Your task to perform on an android device: Turn off the flashlight Image 0: 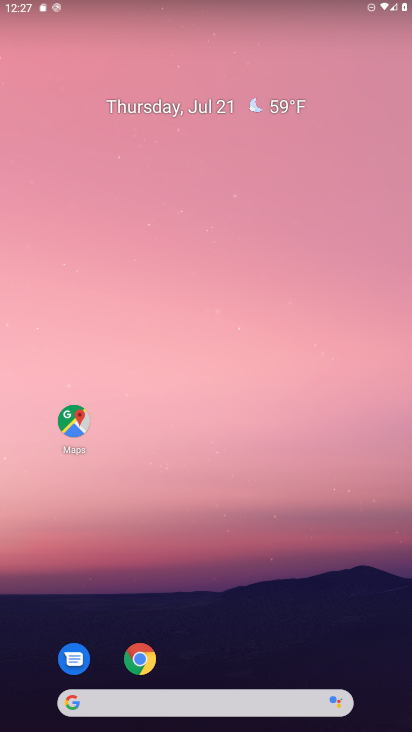
Step 0: press home button
Your task to perform on an android device: Turn off the flashlight Image 1: 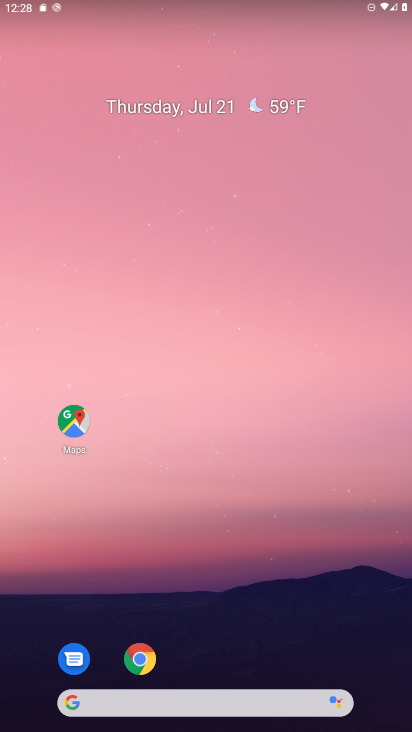
Step 1: drag from (59, 570) to (253, 96)
Your task to perform on an android device: Turn off the flashlight Image 2: 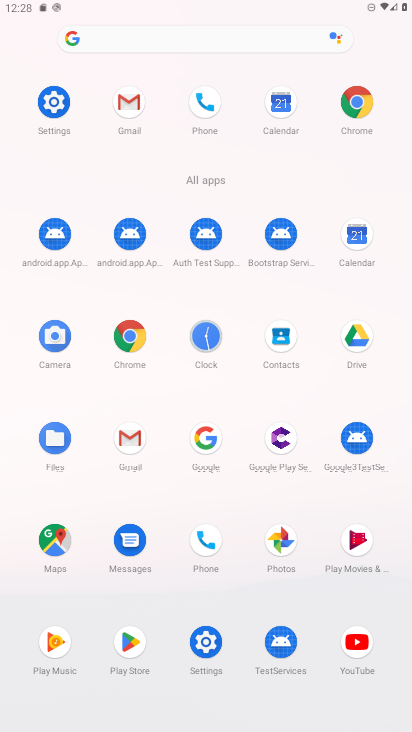
Step 2: click (61, 113)
Your task to perform on an android device: Turn off the flashlight Image 3: 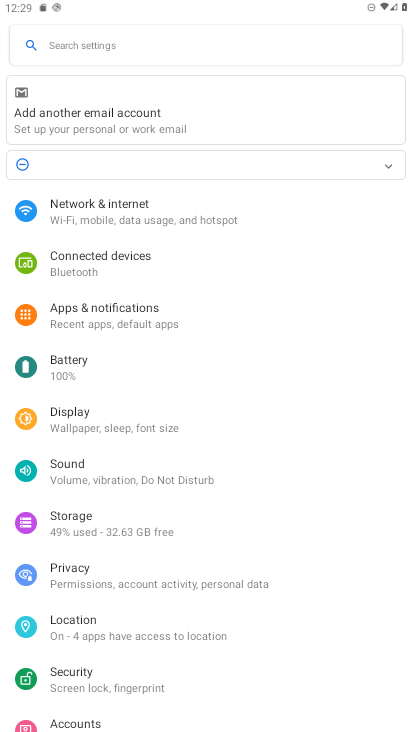
Step 3: task complete